Your task to perform on an android device: open app "File Manager" Image 0: 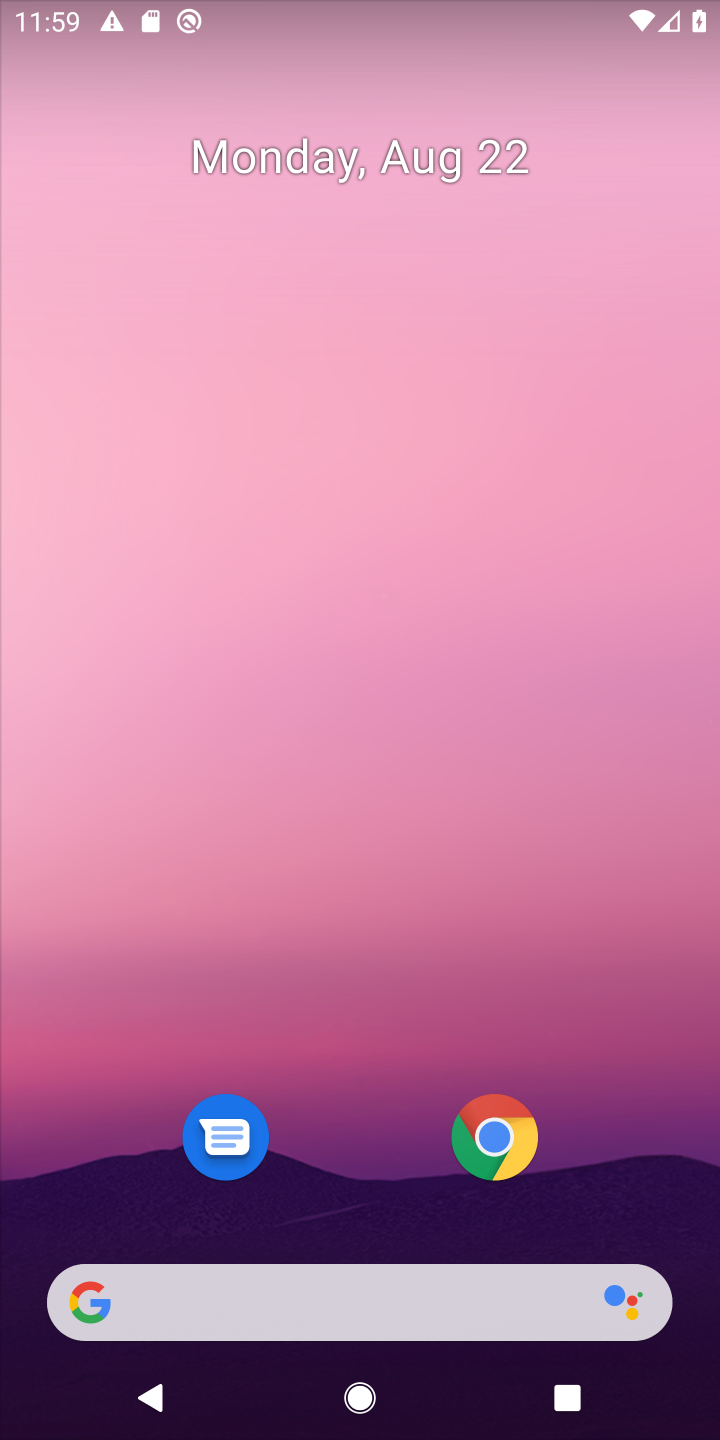
Step 0: drag from (371, 1143) to (501, 10)
Your task to perform on an android device: open app "File Manager" Image 1: 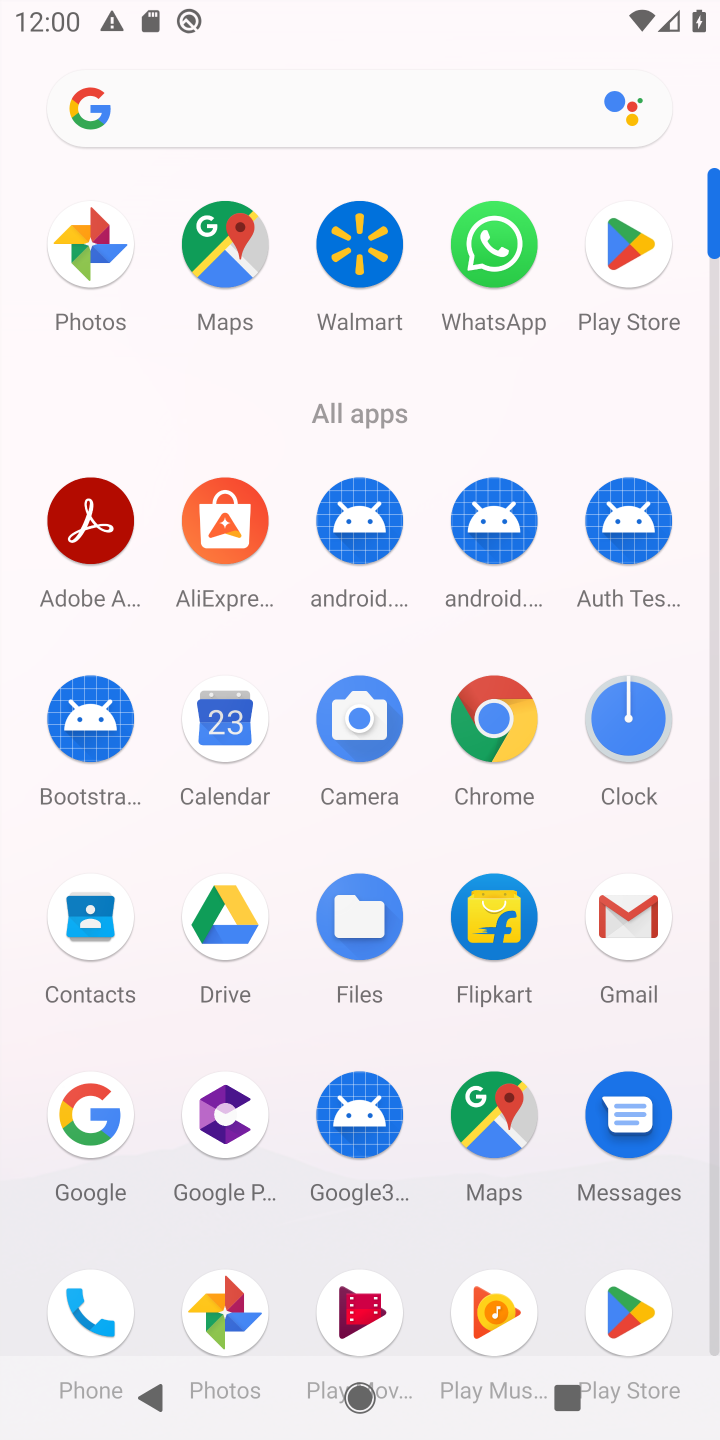
Step 1: click (625, 292)
Your task to perform on an android device: open app "File Manager" Image 2: 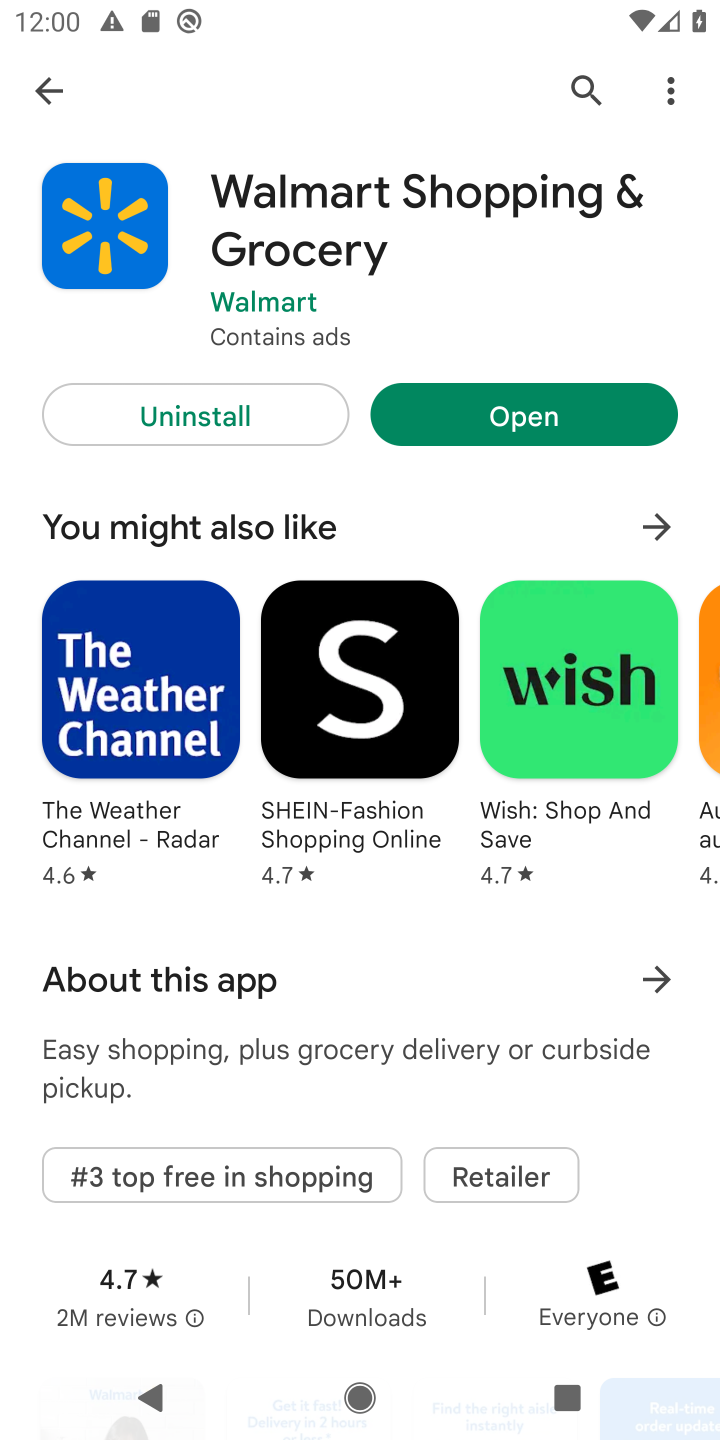
Step 2: click (96, 154)
Your task to perform on an android device: open app "File Manager" Image 3: 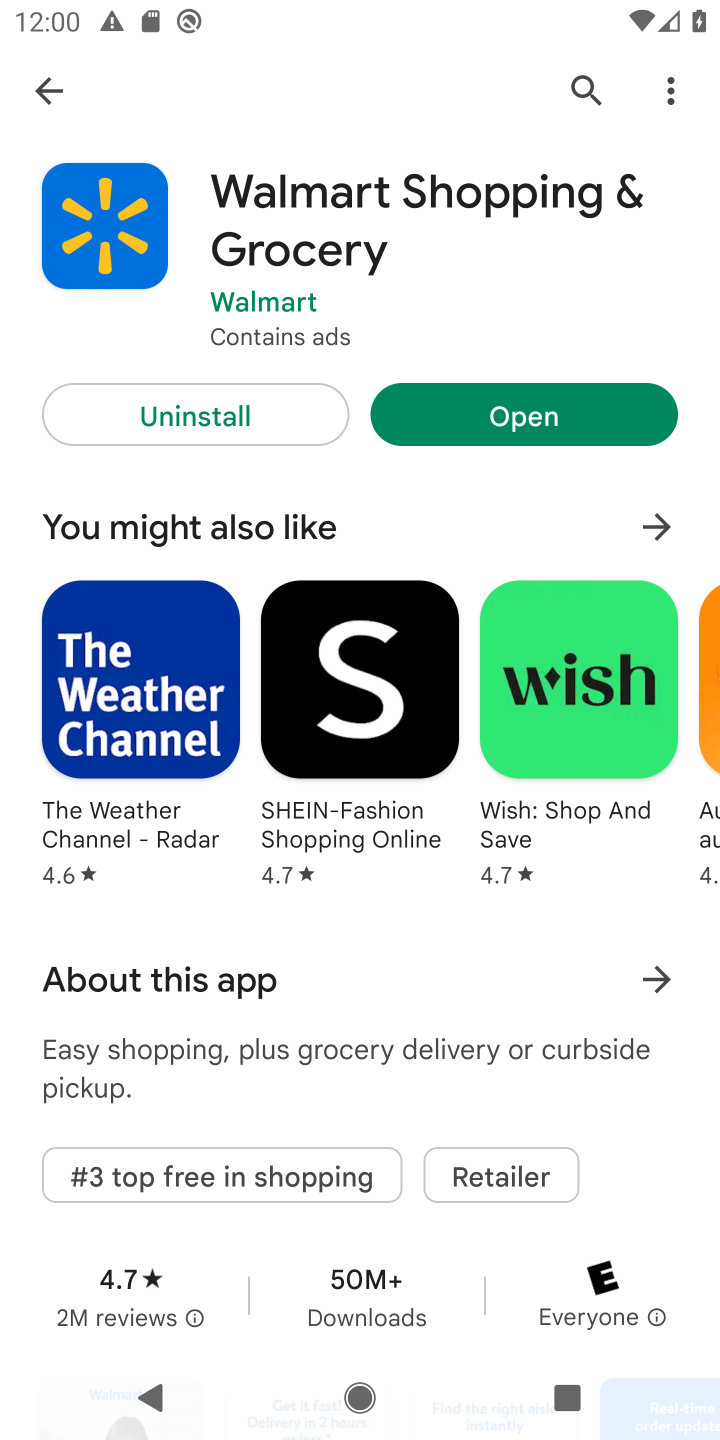
Step 3: click (55, 81)
Your task to perform on an android device: open app "File Manager" Image 4: 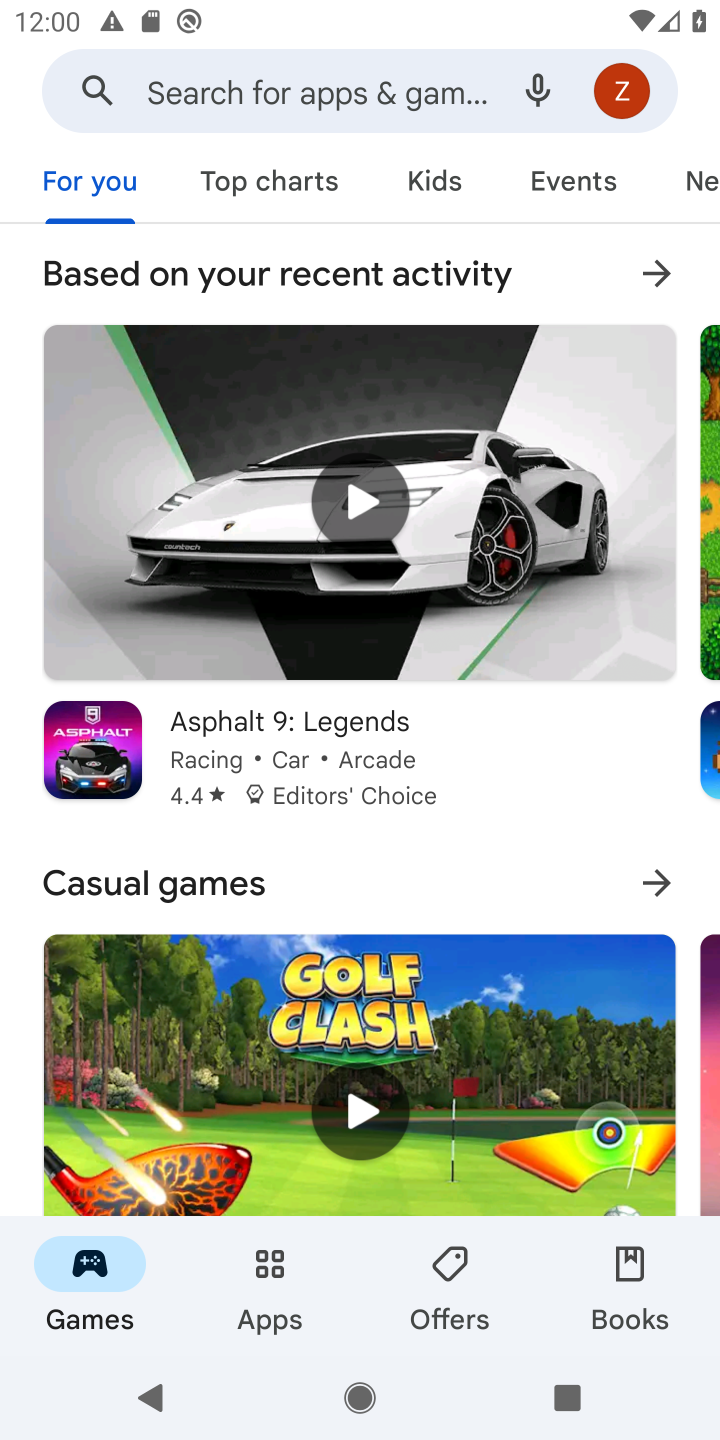
Step 4: drag from (51, 90) to (265, 103)
Your task to perform on an android device: open app "File Manager" Image 5: 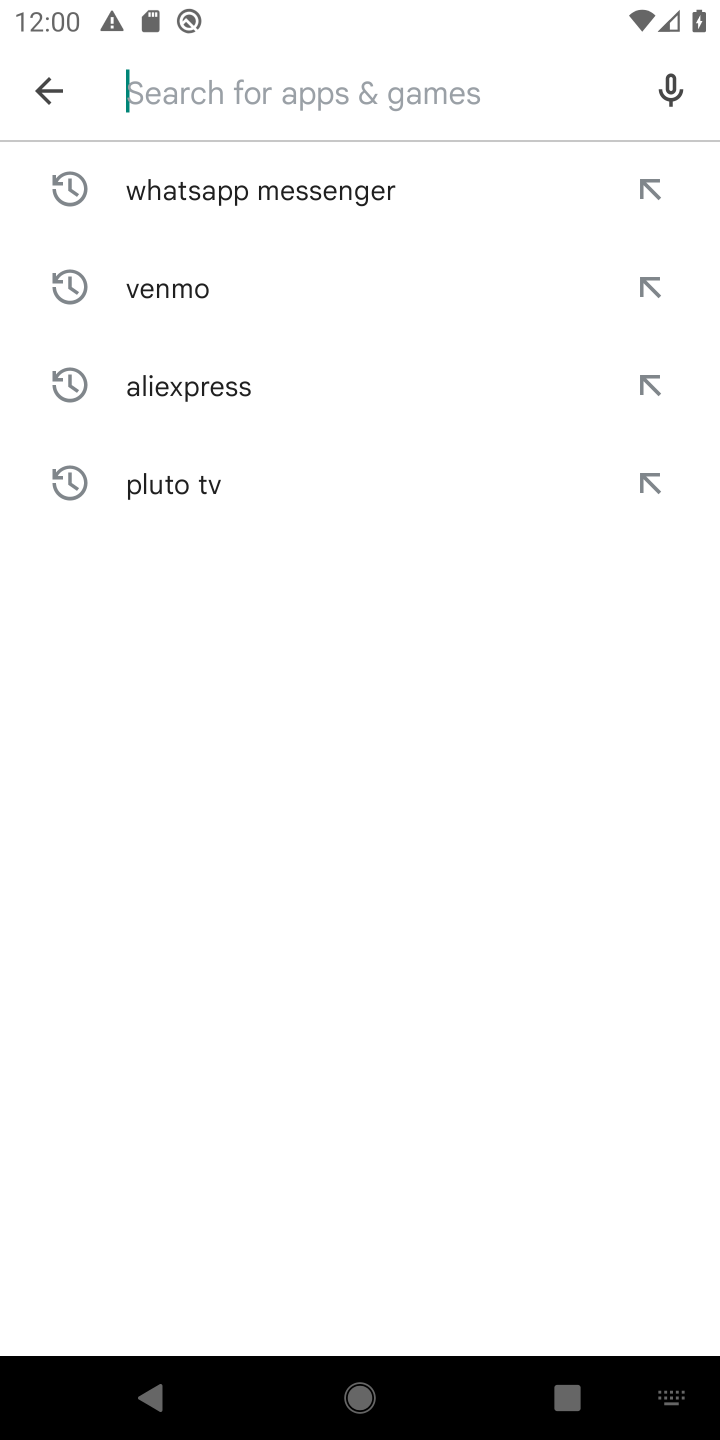
Step 5: type "File Manager"
Your task to perform on an android device: open app "File Manager" Image 6: 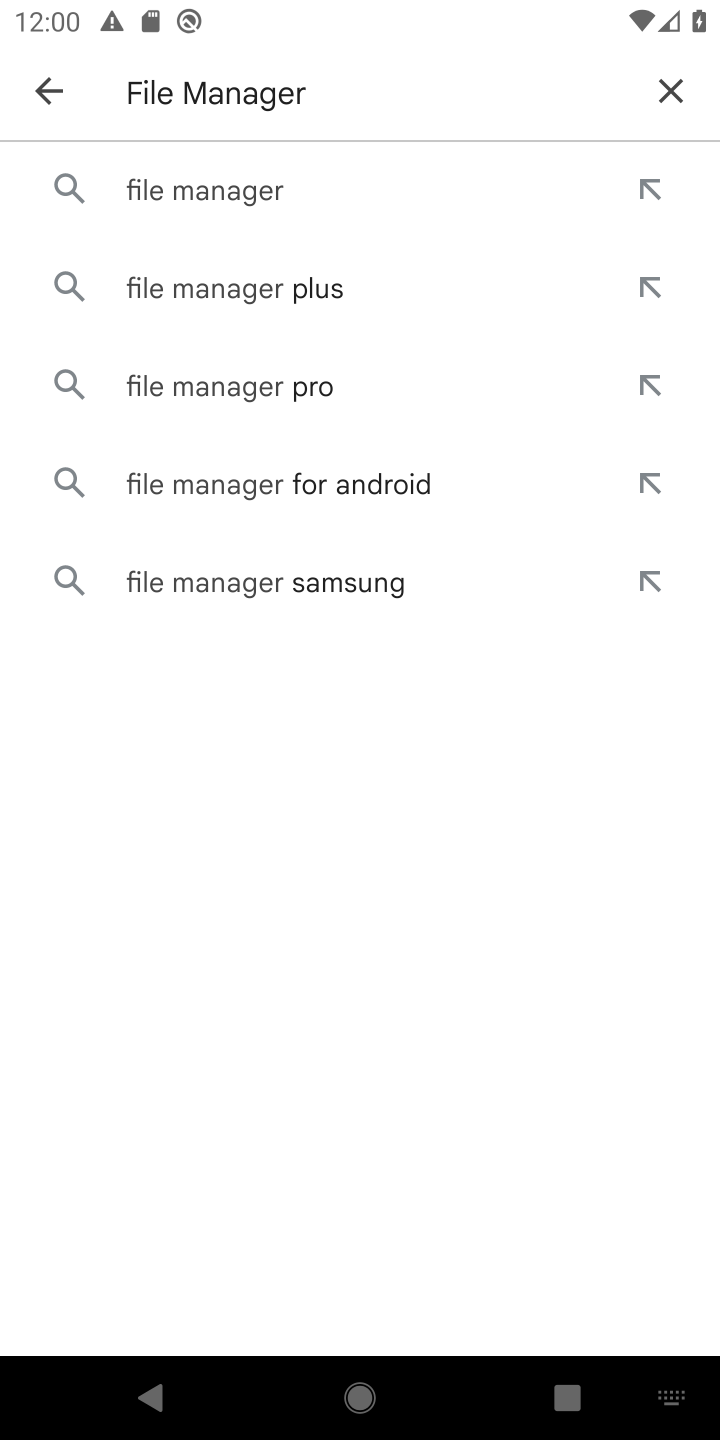
Step 6: click (245, 195)
Your task to perform on an android device: open app "File Manager" Image 7: 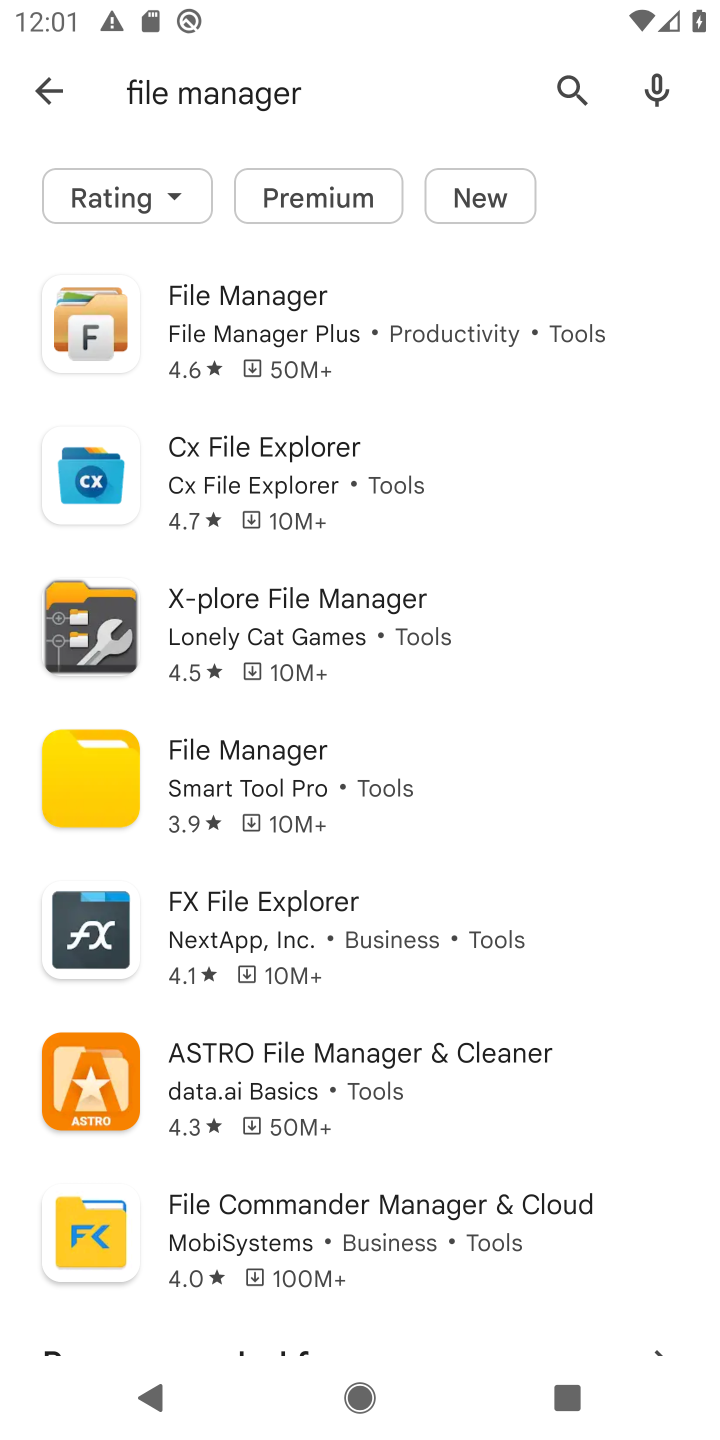
Step 7: click (271, 767)
Your task to perform on an android device: open app "File Manager" Image 8: 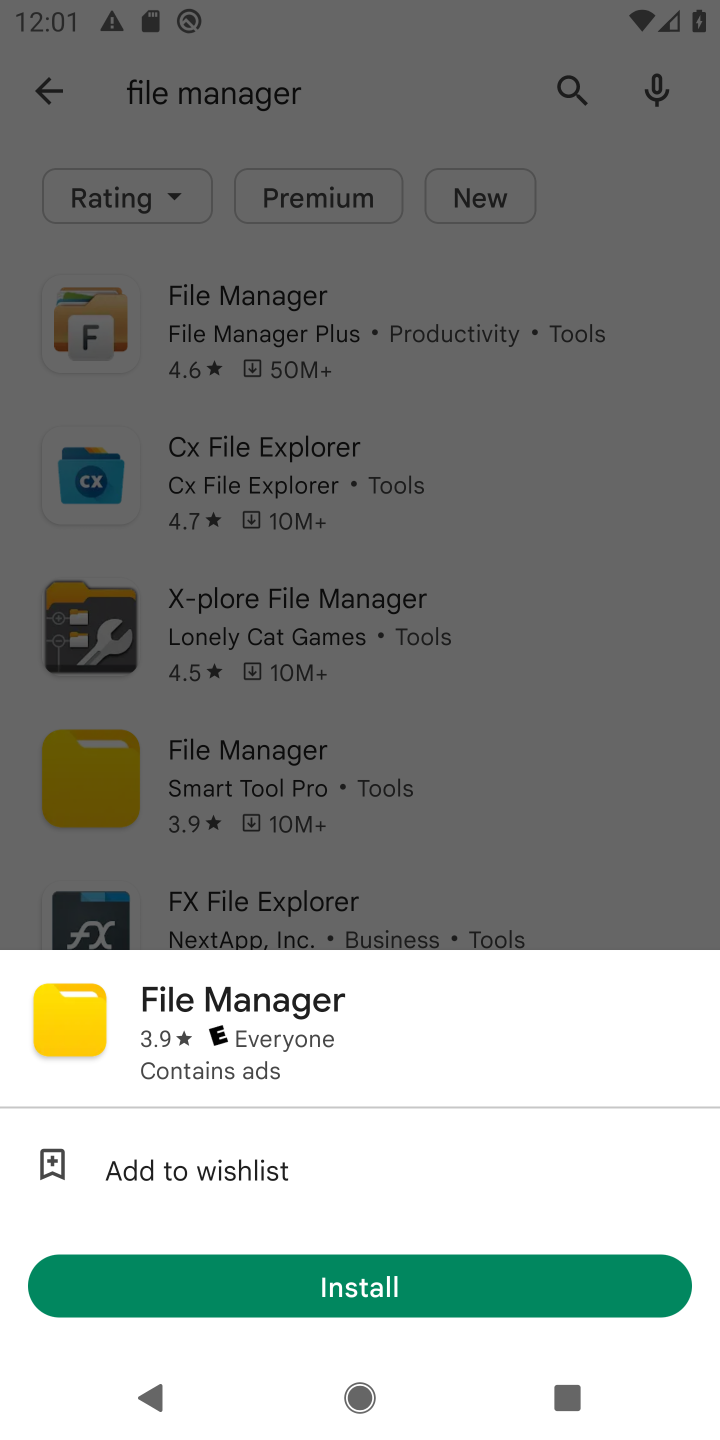
Step 8: click (368, 1283)
Your task to perform on an android device: open app "File Manager" Image 9: 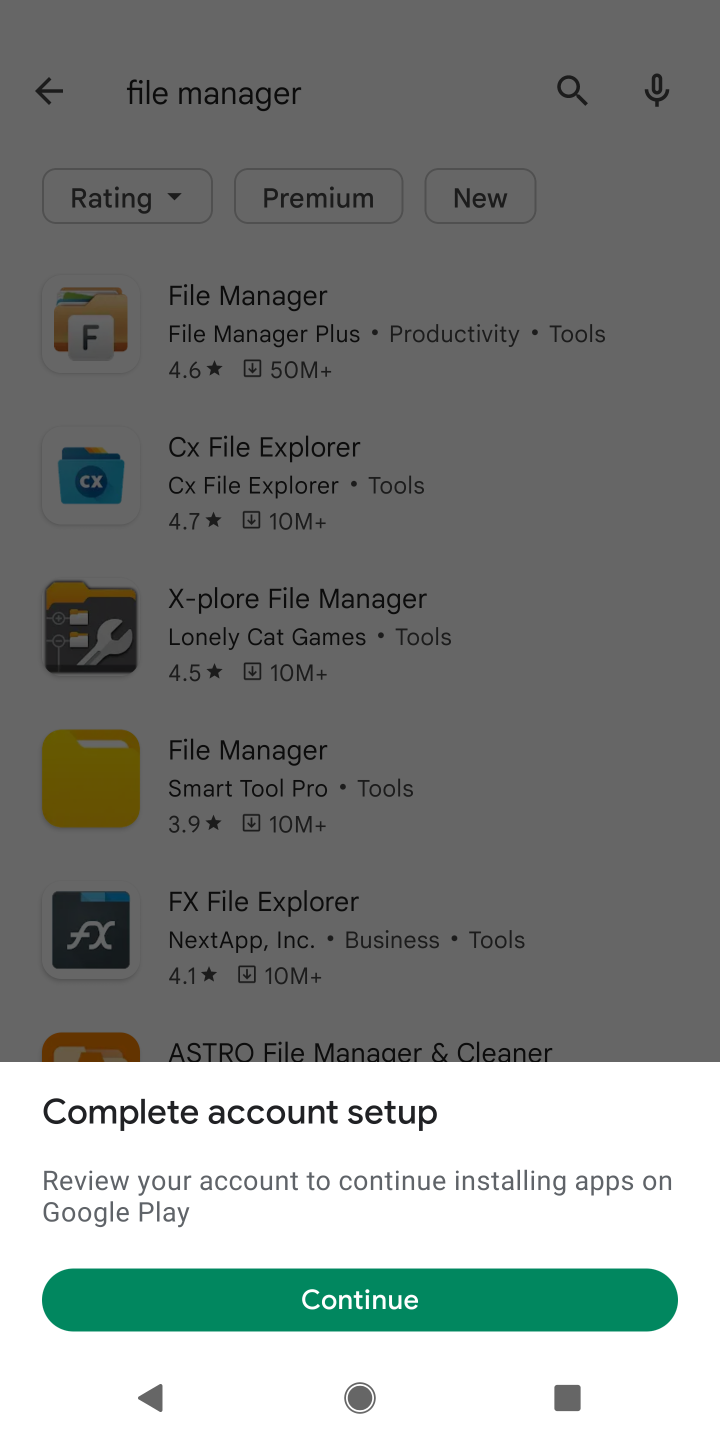
Step 9: click (380, 1311)
Your task to perform on an android device: open app "File Manager" Image 10: 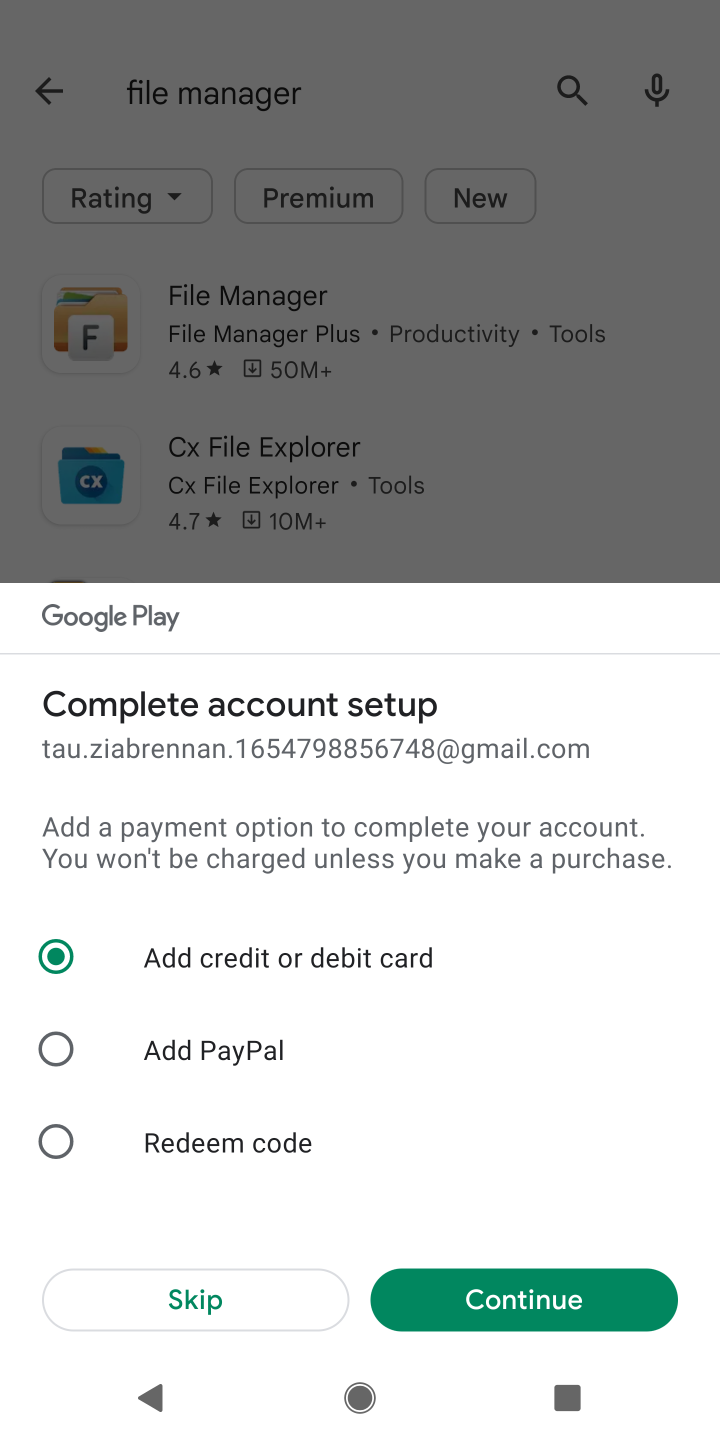
Step 10: click (283, 1294)
Your task to perform on an android device: open app "File Manager" Image 11: 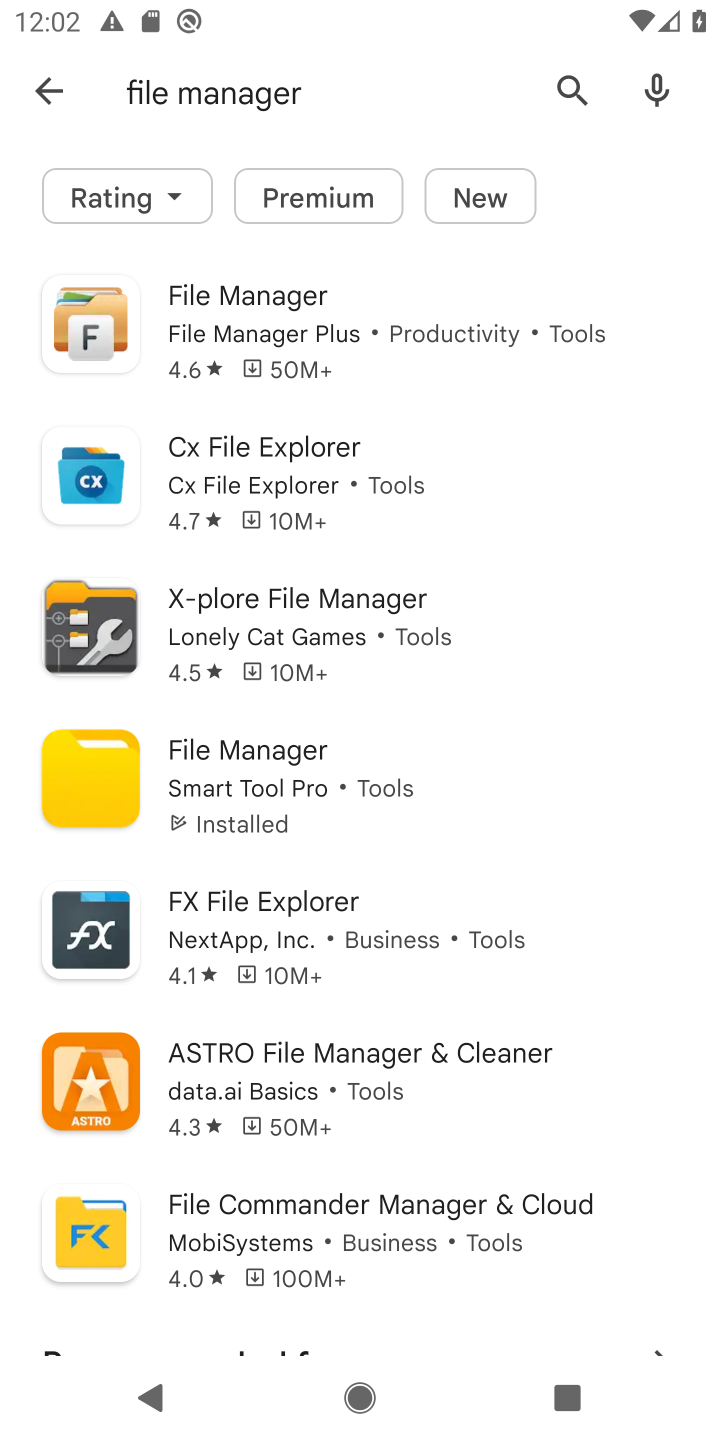
Step 11: click (260, 808)
Your task to perform on an android device: open app "File Manager" Image 12: 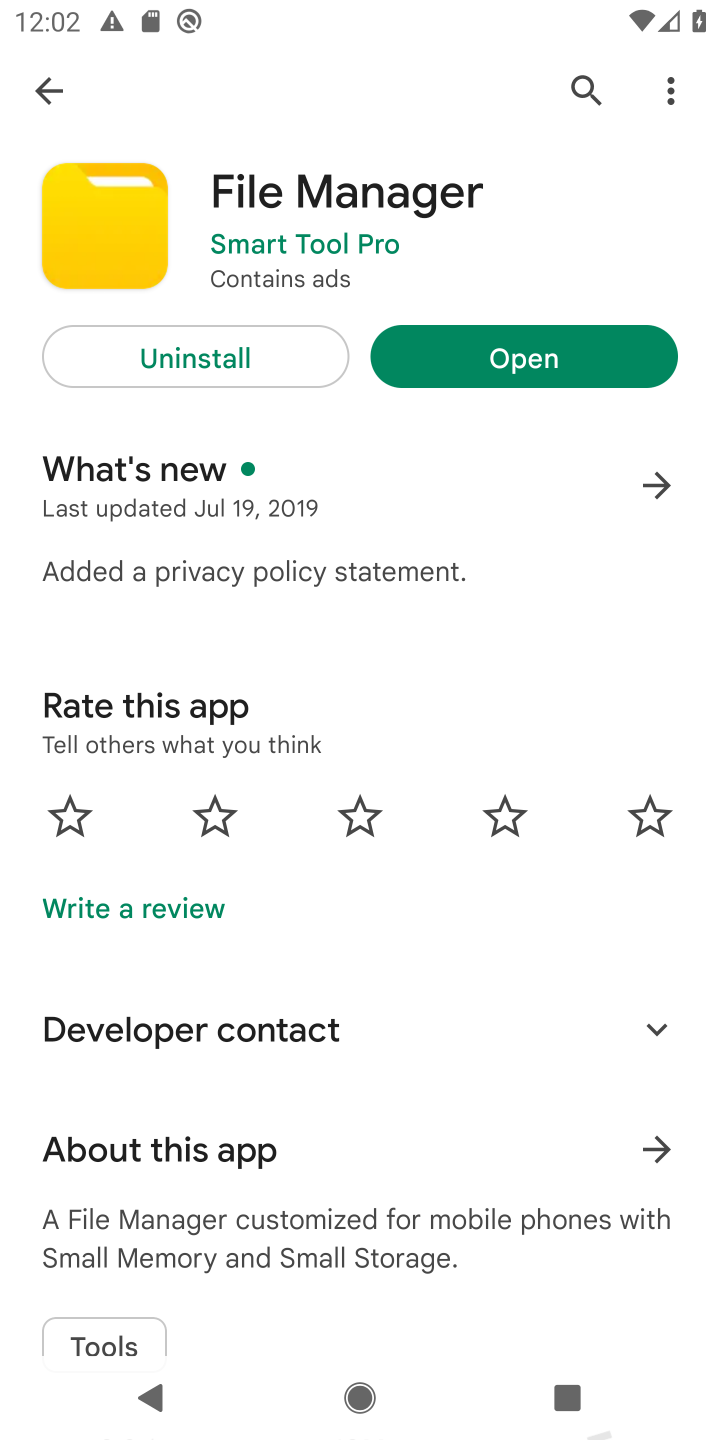
Step 12: click (464, 373)
Your task to perform on an android device: open app "File Manager" Image 13: 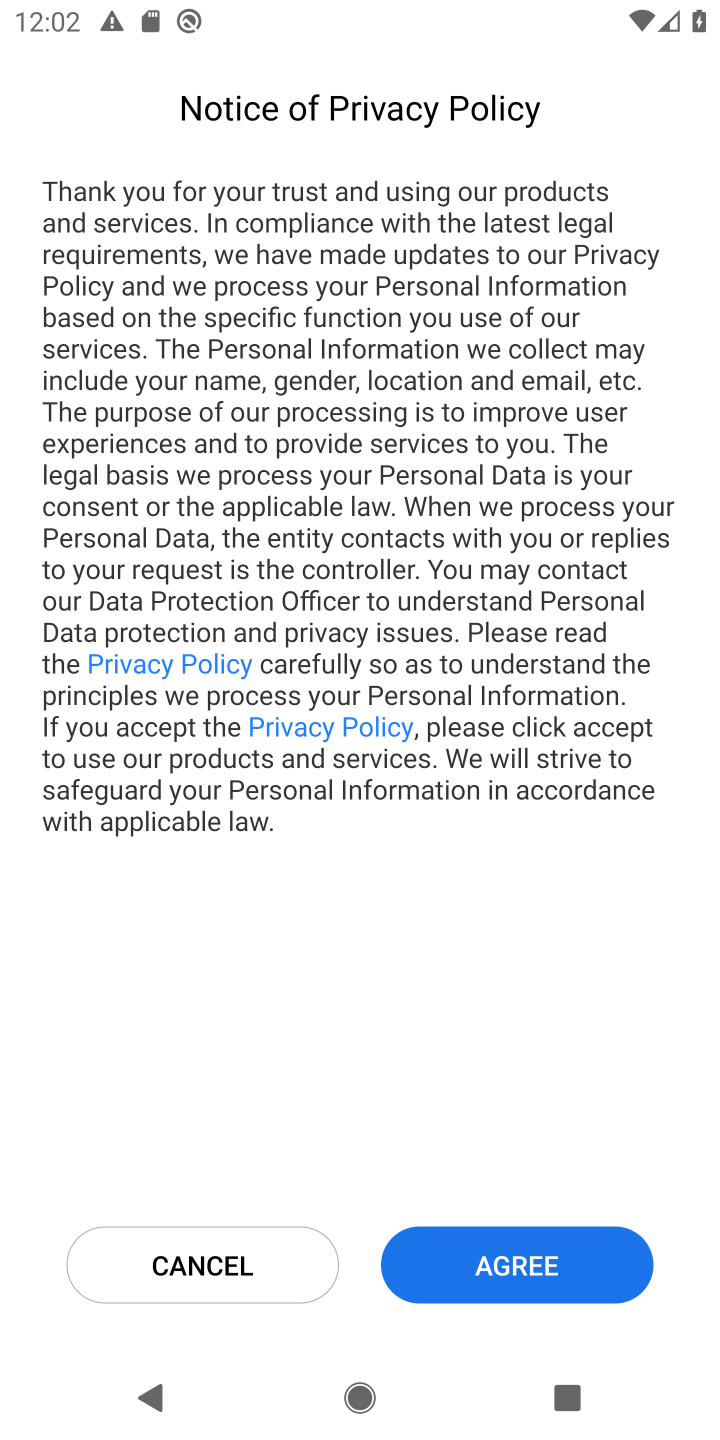
Step 13: click (512, 1265)
Your task to perform on an android device: open app "File Manager" Image 14: 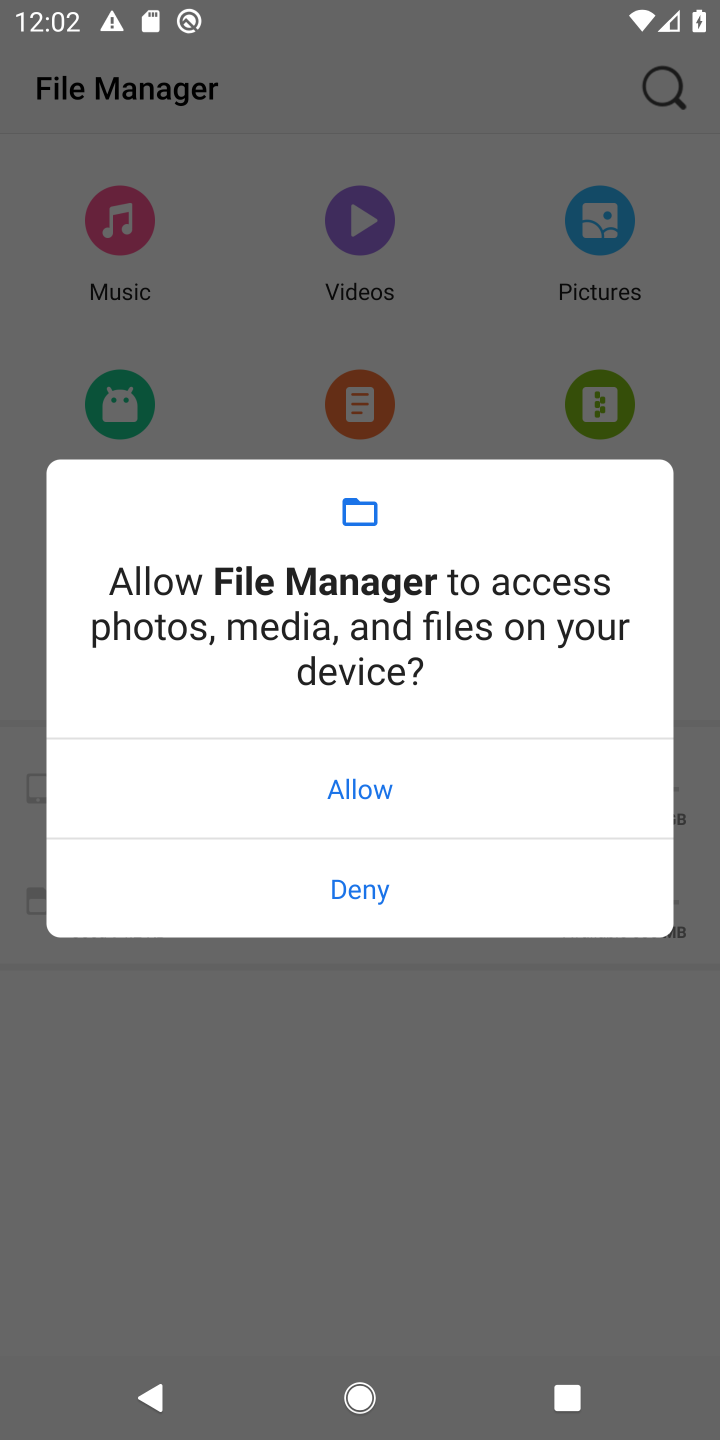
Step 14: click (357, 774)
Your task to perform on an android device: open app "File Manager" Image 15: 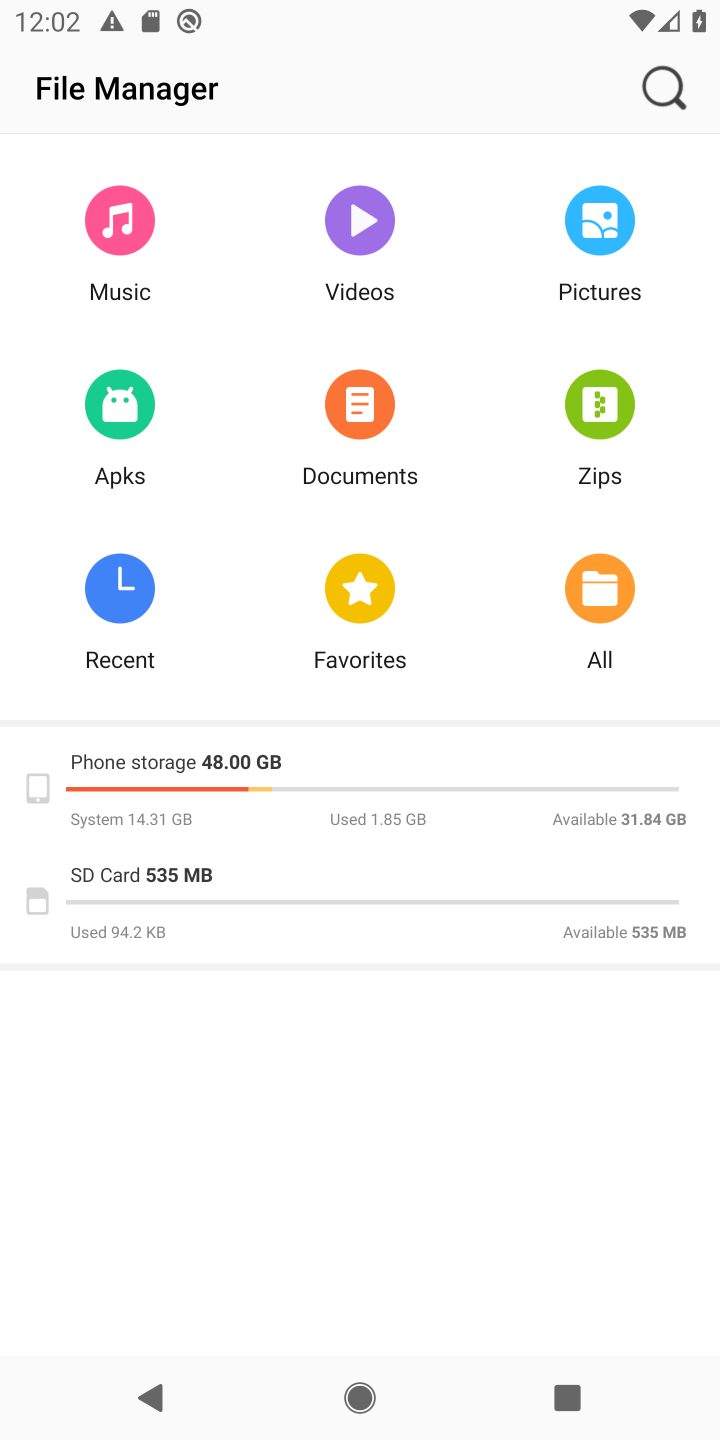
Step 15: task complete